Your task to perform on an android device: Open CNN.com Image 0: 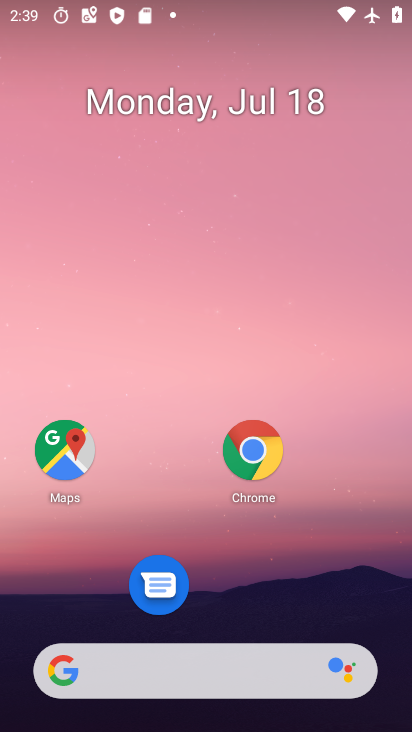
Step 0: click (253, 455)
Your task to perform on an android device: Open CNN.com Image 1: 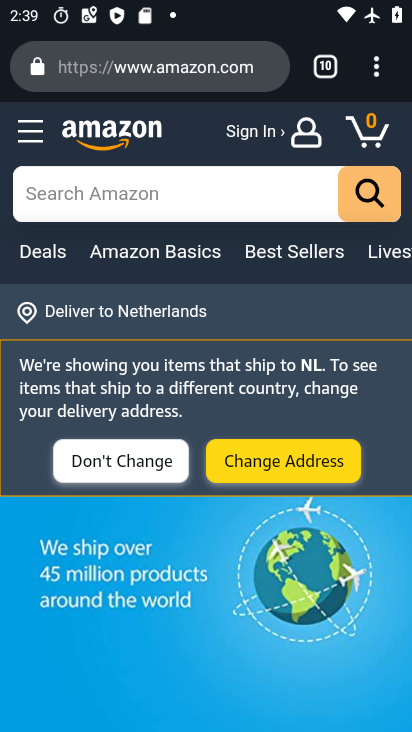
Step 1: drag from (372, 66) to (231, 132)
Your task to perform on an android device: Open CNN.com Image 2: 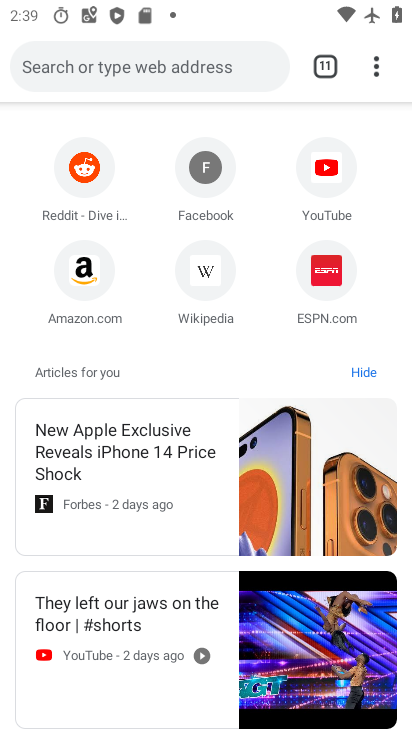
Step 2: click (147, 66)
Your task to perform on an android device: Open CNN.com Image 3: 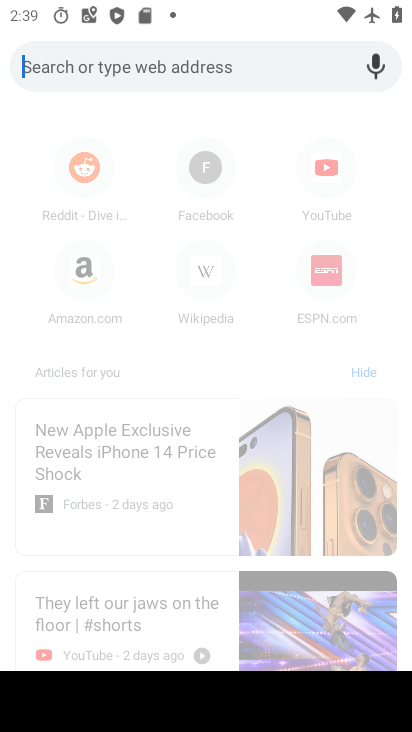
Step 3: type "cnn.com"
Your task to perform on an android device: Open CNN.com Image 4: 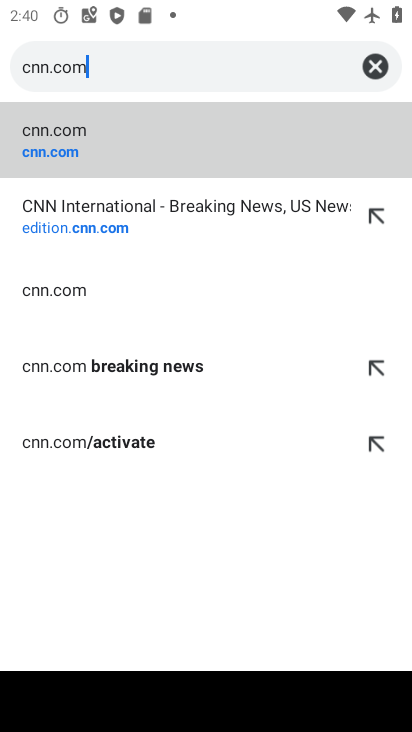
Step 4: click (109, 150)
Your task to perform on an android device: Open CNN.com Image 5: 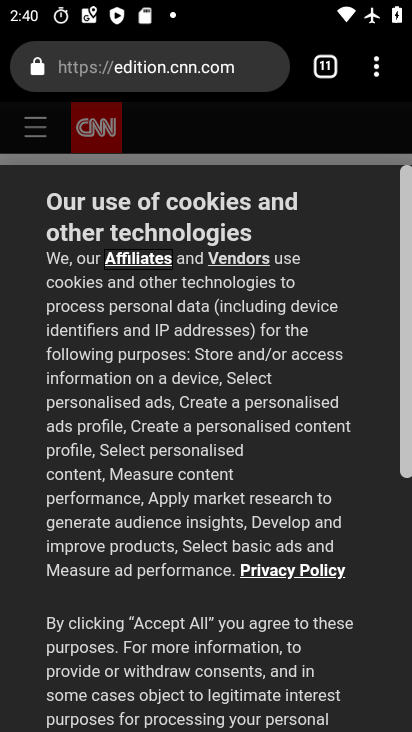
Step 5: drag from (155, 613) to (259, 242)
Your task to perform on an android device: Open CNN.com Image 6: 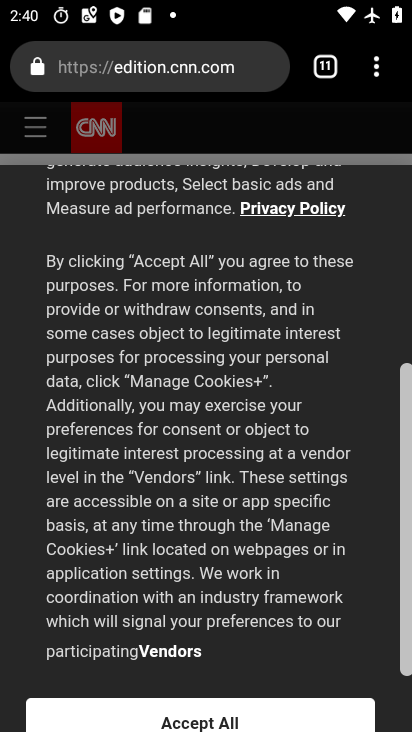
Step 6: drag from (177, 613) to (285, 225)
Your task to perform on an android device: Open CNN.com Image 7: 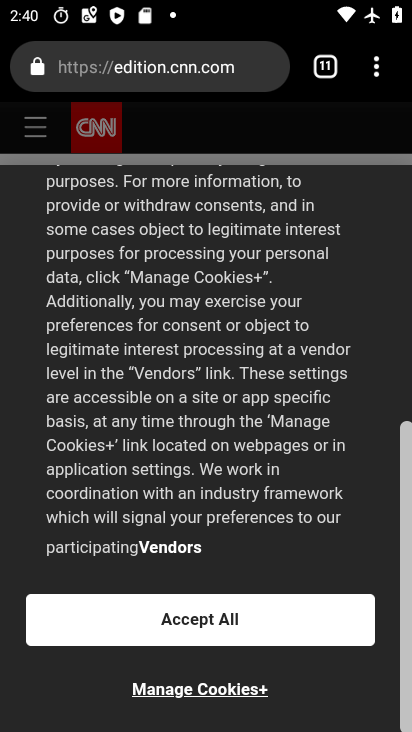
Step 7: click (209, 616)
Your task to perform on an android device: Open CNN.com Image 8: 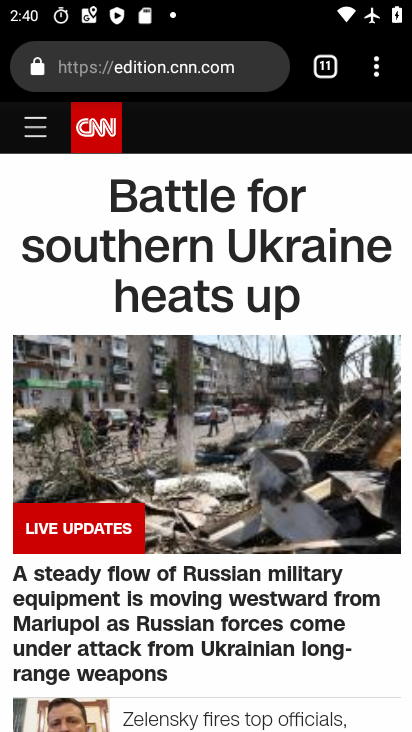
Step 8: task complete